Your task to perform on an android device: turn off sleep mode Image 0: 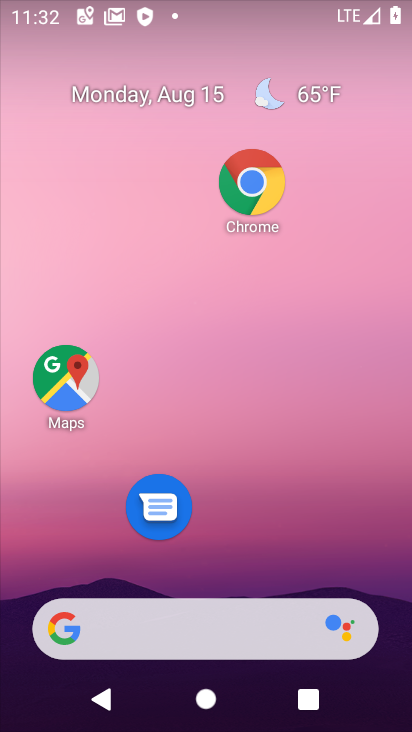
Step 0: drag from (299, 572) to (311, 41)
Your task to perform on an android device: turn off sleep mode Image 1: 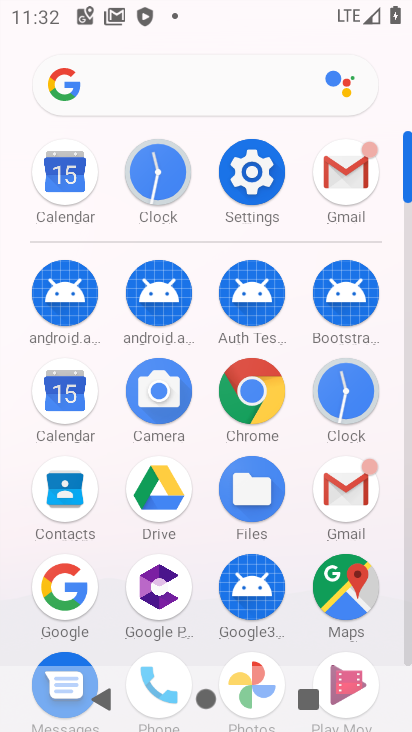
Step 1: click (248, 184)
Your task to perform on an android device: turn off sleep mode Image 2: 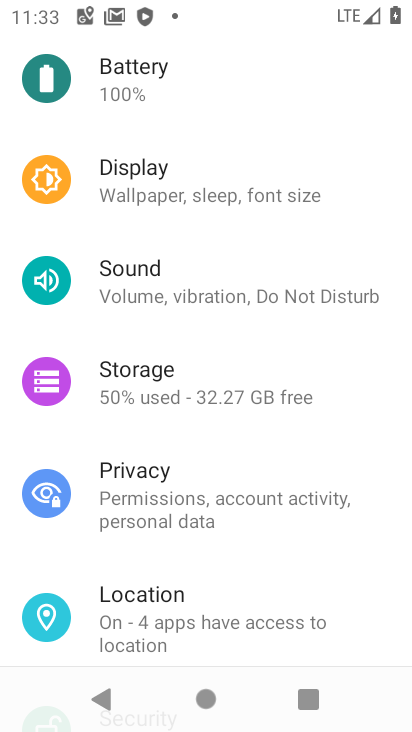
Step 2: drag from (246, 184) to (178, 553)
Your task to perform on an android device: turn off sleep mode Image 3: 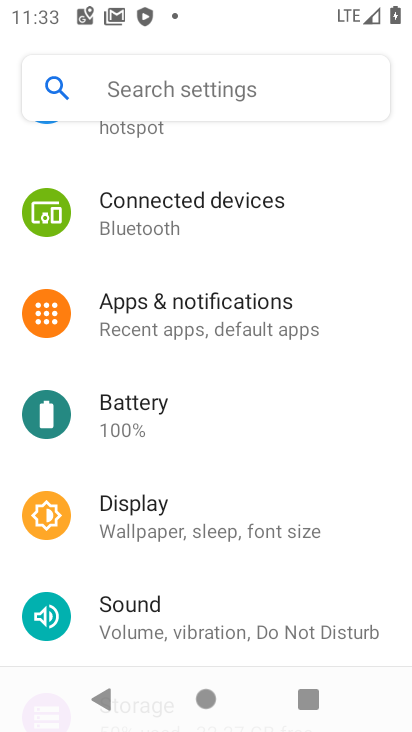
Step 3: drag from (175, 325) to (251, 715)
Your task to perform on an android device: turn off sleep mode Image 4: 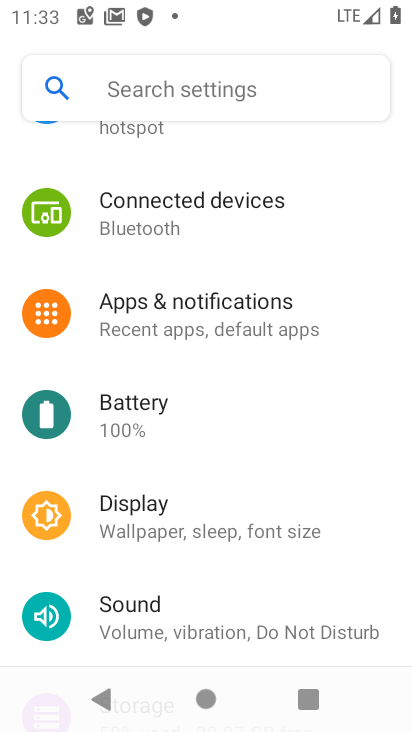
Step 4: click (279, 510)
Your task to perform on an android device: turn off sleep mode Image 5: 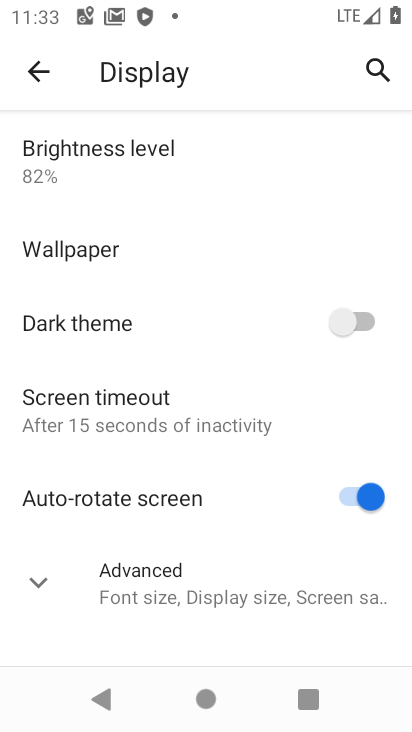
Step 5: click (246, 423)
Your task to perform on an android device: turn off sleep mode Image 6: 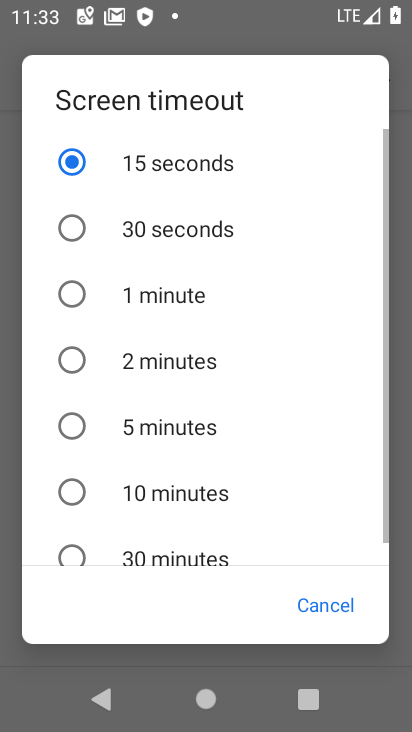
Step 6: click (132, 245)
Your task to perform on an android device: turn off sleep mode Image 7: 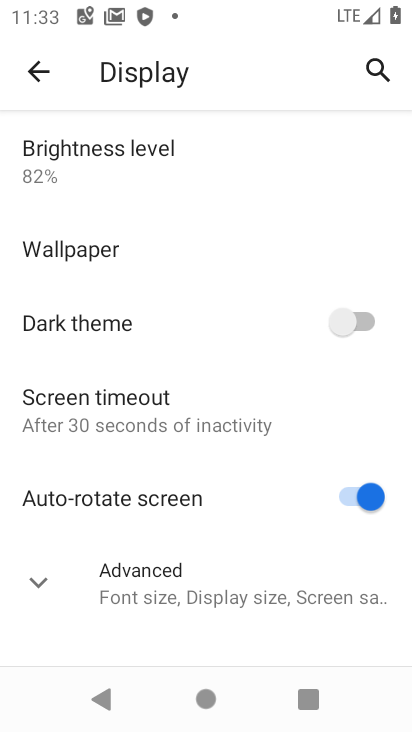
Step 7: task complete